Your task to perform on an android device: change the upload size in google photos Image 0: 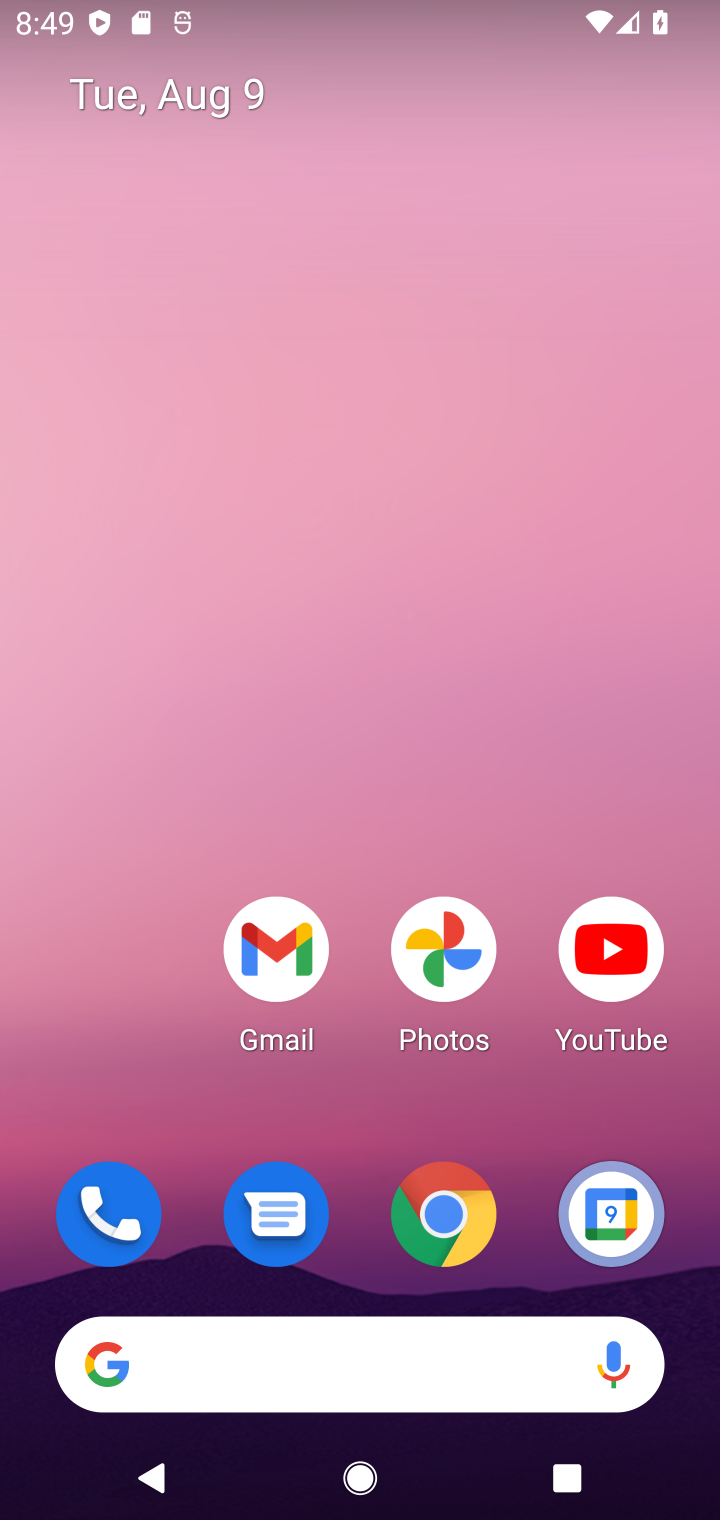
Step 0: click (462, 988)
Your task to perform on an android device: change the upload size in google photos Image 1: 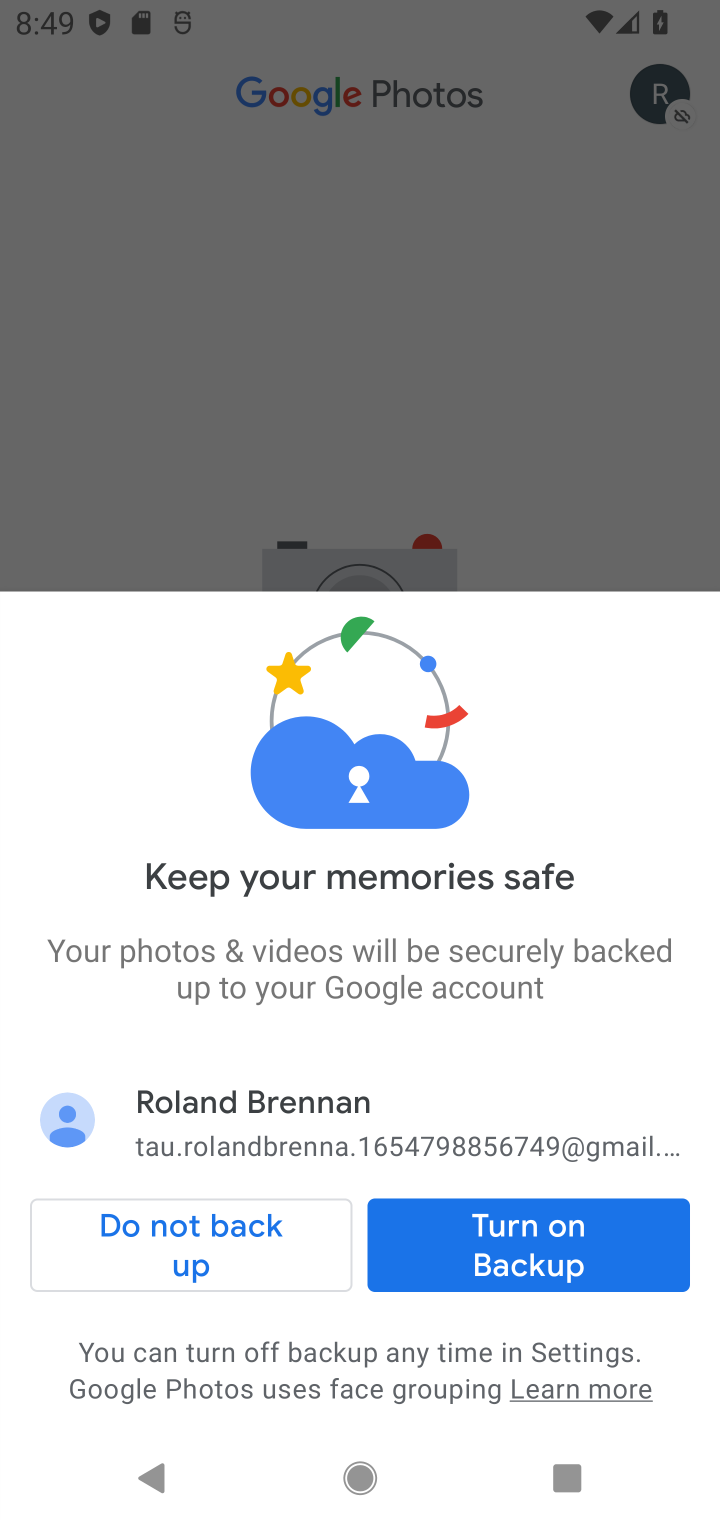
Step 1: click (187, 1225)
Your task to perform on an android device: change the upload size in google photos Image 2: 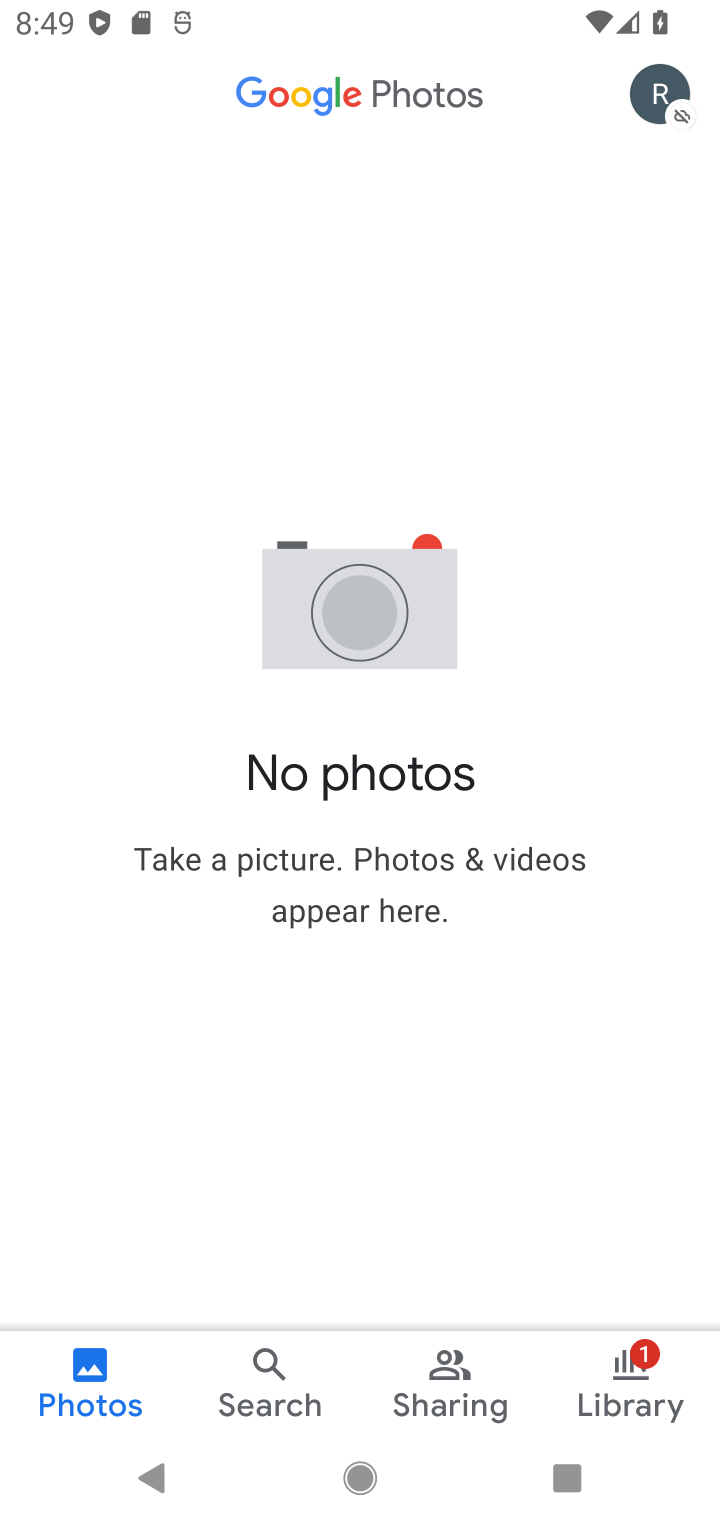
Step 2: click (667, 92)
Your task to perform on an android device: change the upload size in google photos Image 3: 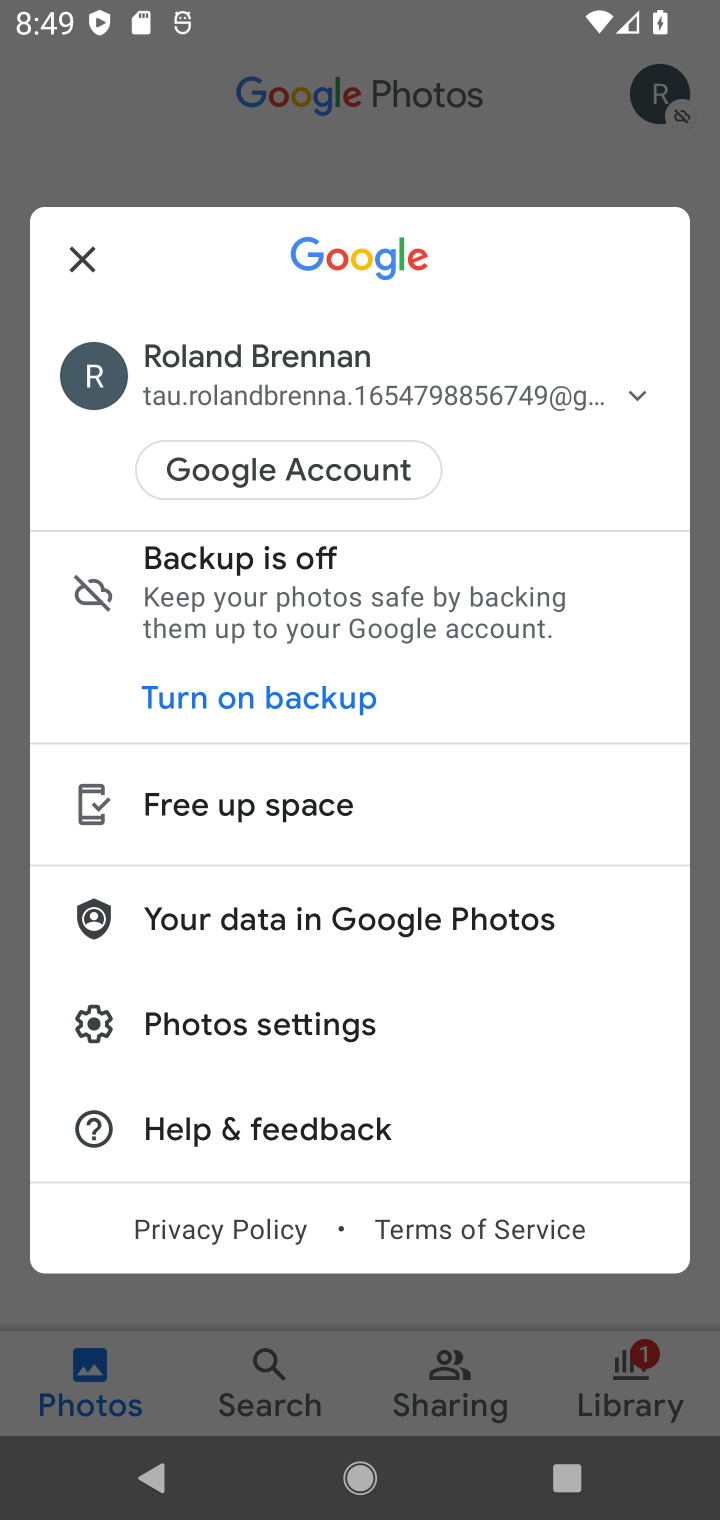
Step 3: click (265, 1011)
Your task to perform on an android device: change the upload size in google photos Image 4: 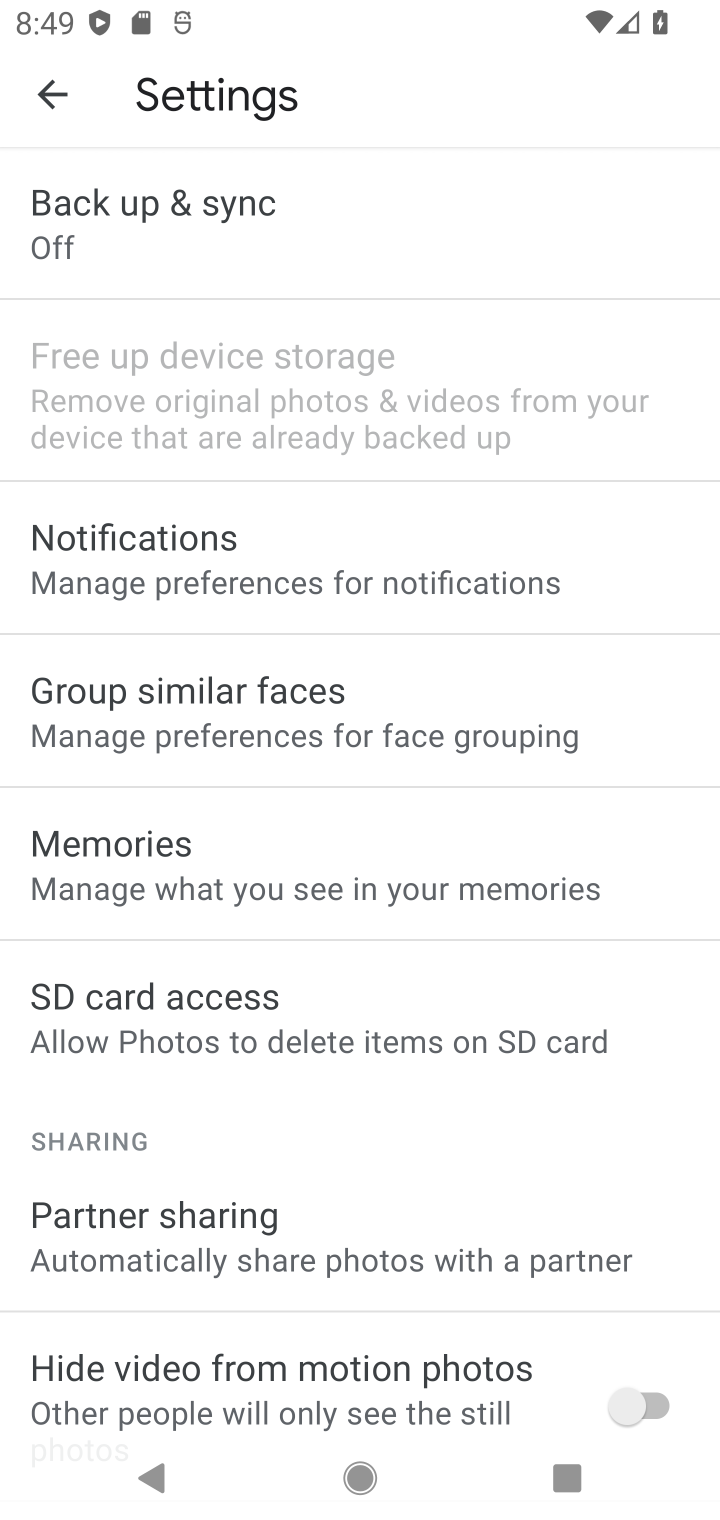
Step 4: click (197, 582)
Your task to perform on an android device: change the upload size in google photos Image 5: 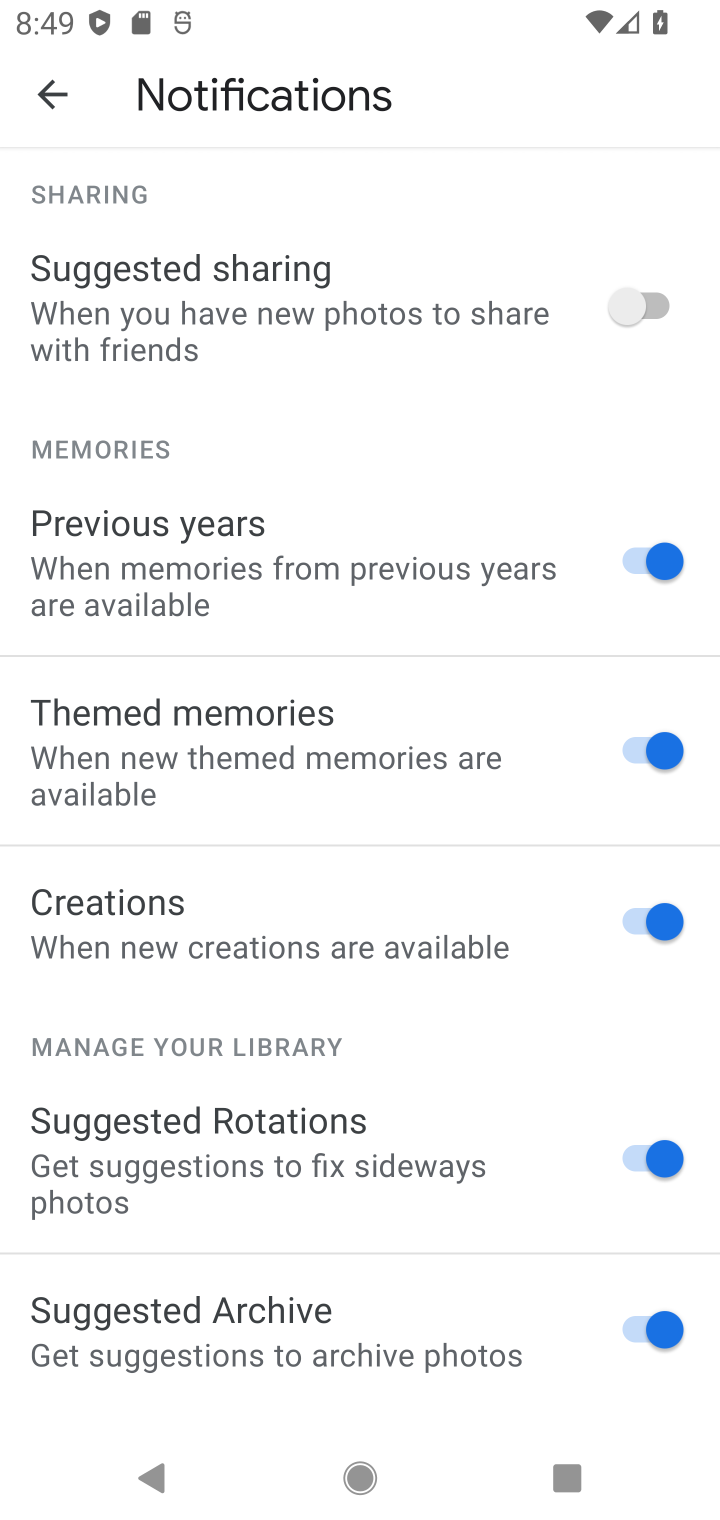
Step 5: task complete